Your task to perform on an android device: stop showing notifications on the lock screen Image 0: 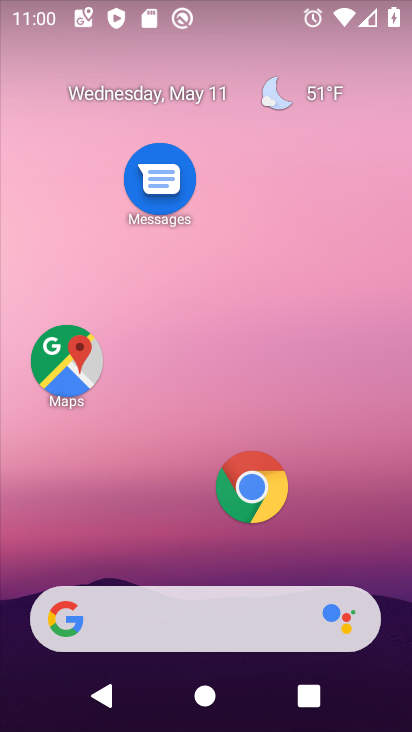
Step 0: drag from (194, 554) to (183, 141)
Your task to perform on an android device: stop showing notifications on the lock screen Image 1: 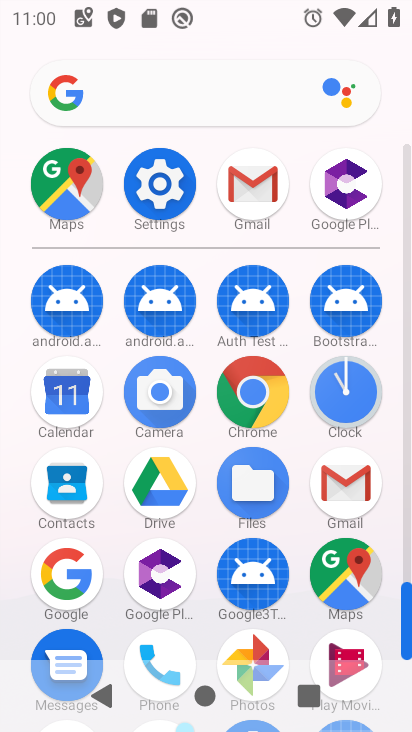
Step 1: click (176, 154)
Your task to perform on an android device: stop showing notifications on the lock screen Image 2: 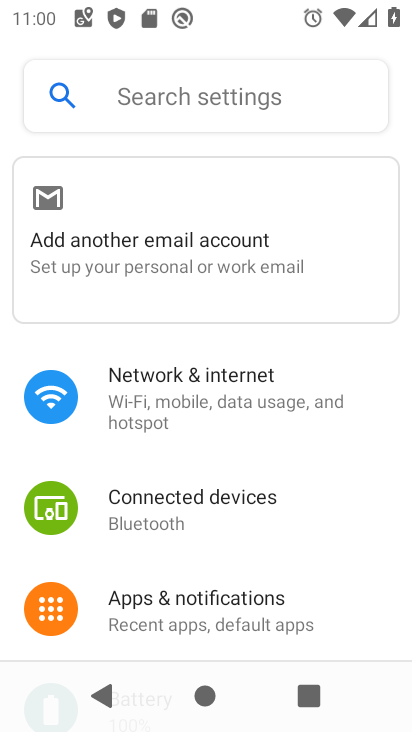
Step 2: drag from (215, 517) to (231, 277)
Your task to perform on an android device: stop showing notifications on the lock screen Image 3: 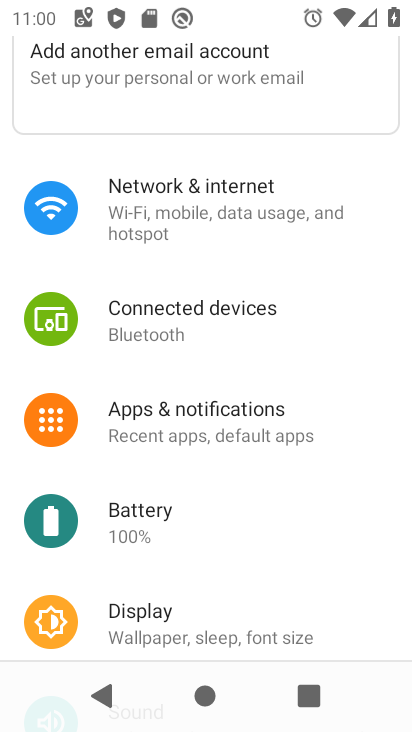
Step 3: click (238, 438)
Your task to perform on an android device: stop showing notifications on the lock screen Image 4: 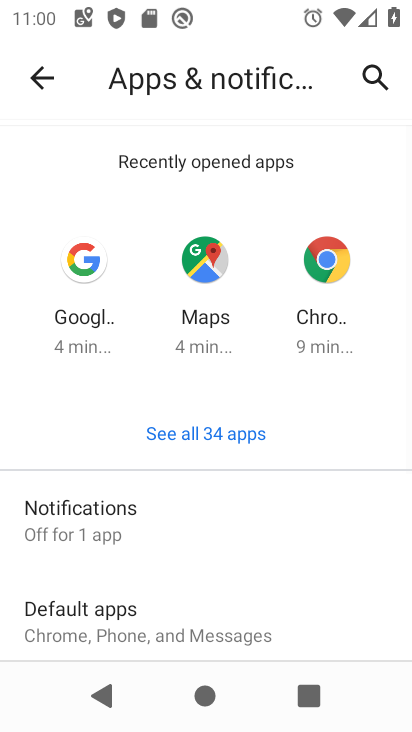
Step 4: click (166, 524)
Your task to perform on an android device: stop showing notifications on the lock screen Image 5: 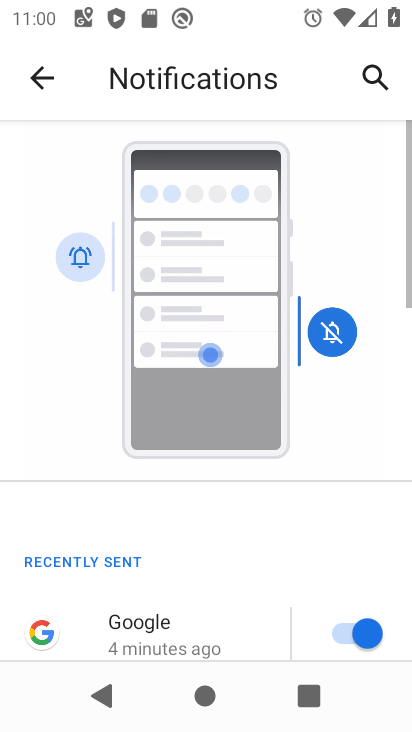
Step 5: drag from (201, 614) to (214, 192)
Your task to perform on an android device: stop showing notifications on the lock screen Image 6: 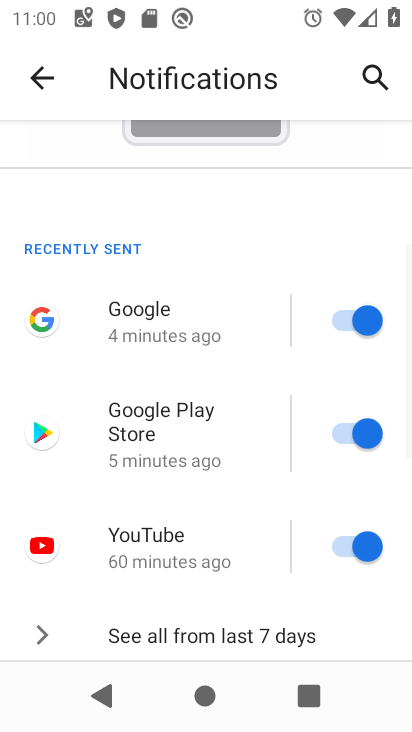
Step 6: drag from (197, 613) to (194, 342)
Your task to perform on an android device: stop showing notifications on the lock screen Image 7: 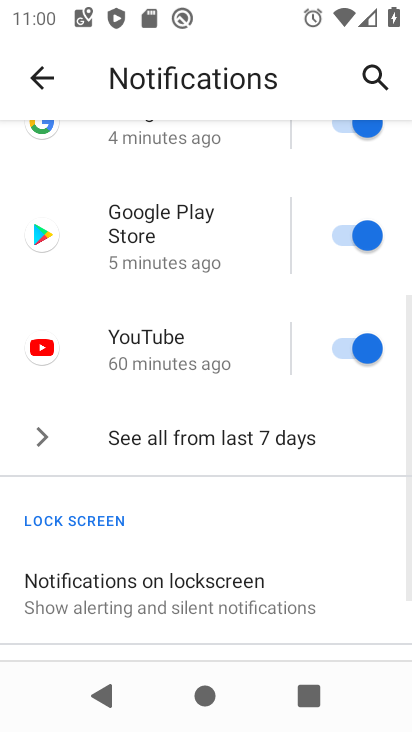
Step 7: click (231, 579)
Your task to perform on an android device: stop showing notifications on the lock screen Image 8: 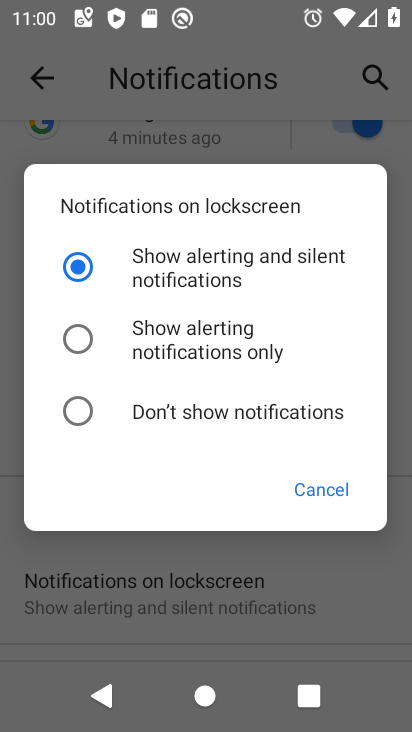
Step 8: click (237, 420)
Your task to perform on an android device: stop showing notifications on the lock screen Image 9: 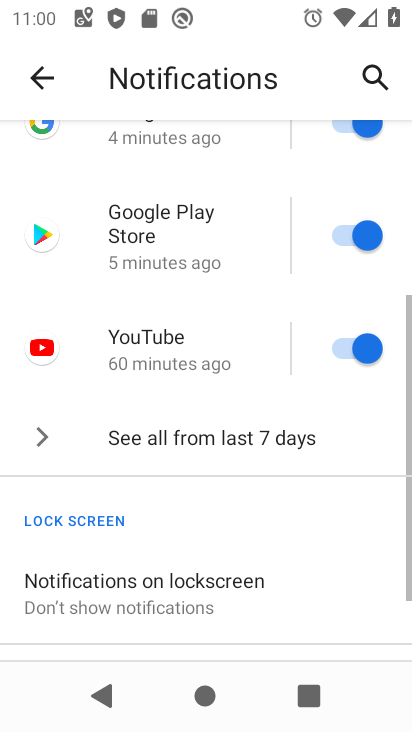
Step 9: task complete